Your task to perform on an android device: Go to Reddit.com Image 0: 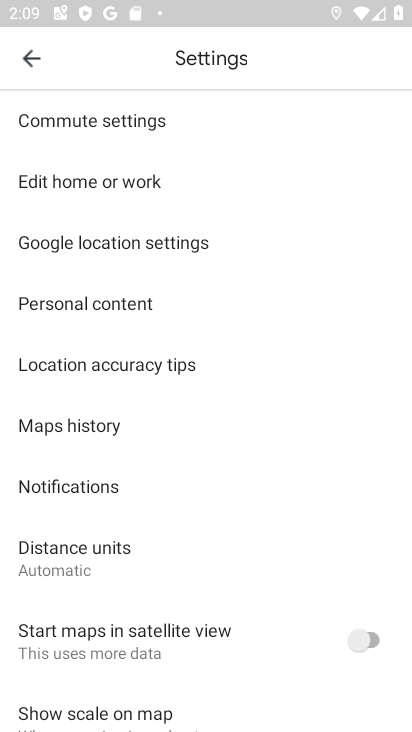
Step 0: press home button
Your task to perform on an android device: Go to Reddit.com Image 1: 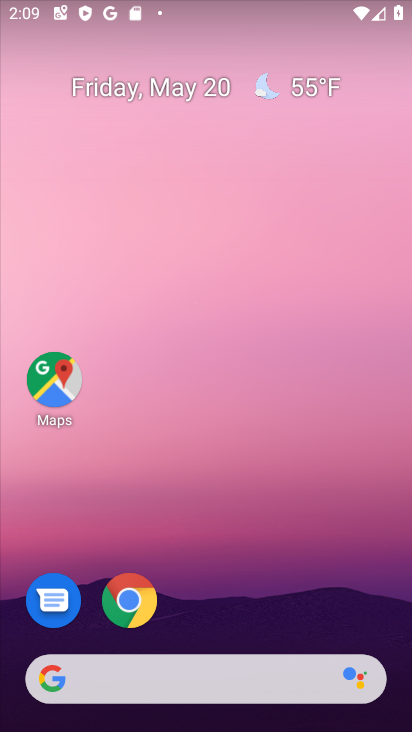
Step 1: drag from (248, 695) to (230, 3)
Your task to perform on an android device: Go to Reddit.com Image 2: 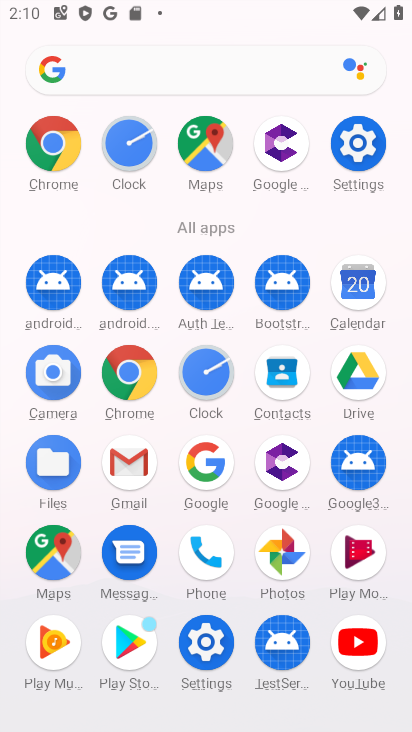
Step 2: click (60, 169)
Your task to perform on an android device: Go to Reddit.com Image 3: 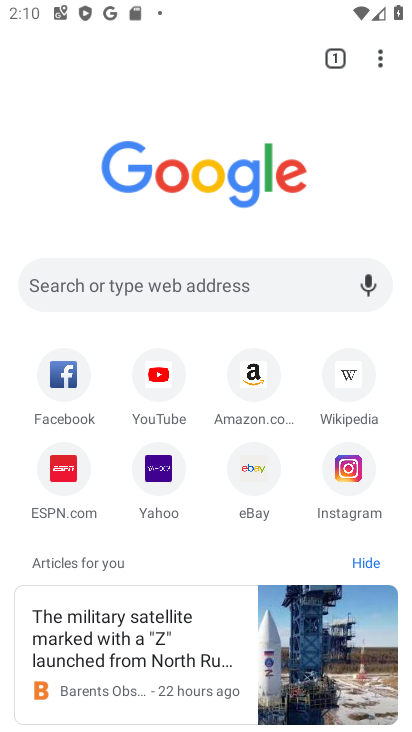
Step 3: click (200, 286)
Your task to perform on an android device: Go to Reddit.com Image 4: 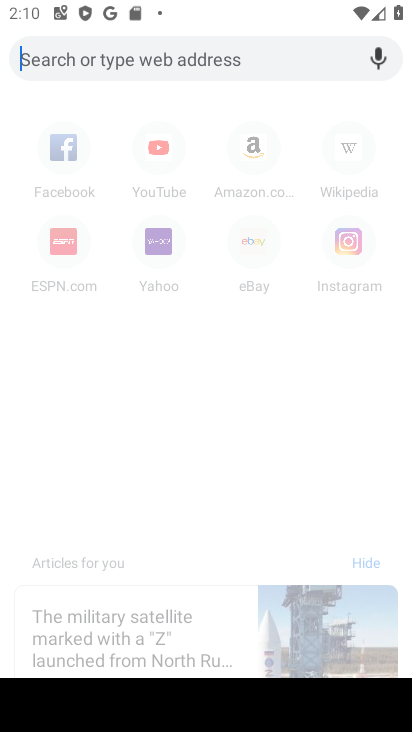
Step 4: type "reddit"
Your task to perform on an android device: Go to Reddit.com Image 5: 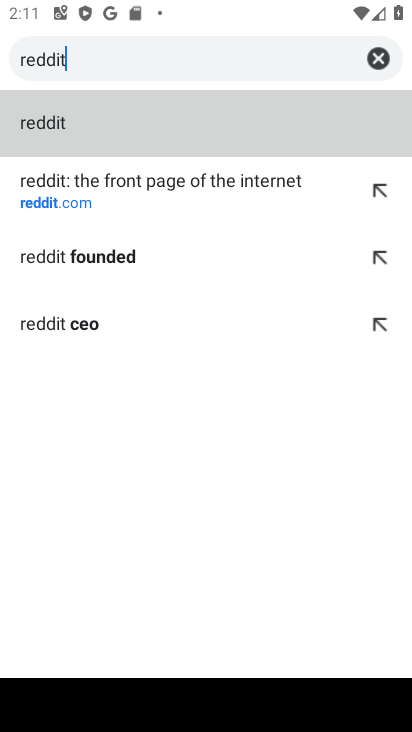
Step 5: click (132, 209)
Your task to perform on an android device: Go to Reddit.com Image 6: 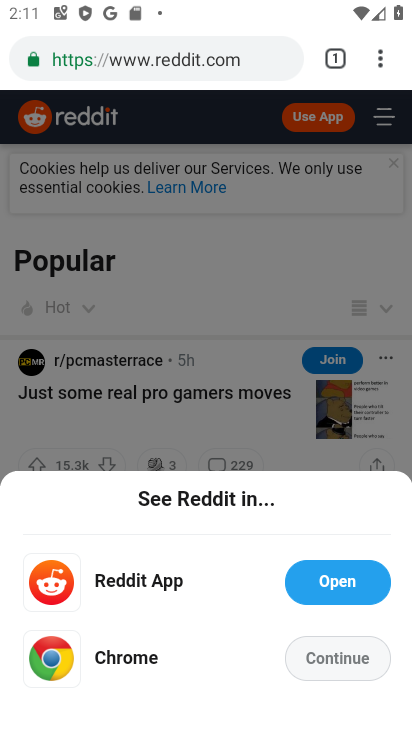
Step 6: click (345, 660)
Your task to perform on an android device: Go to Reddit.com Image 7: 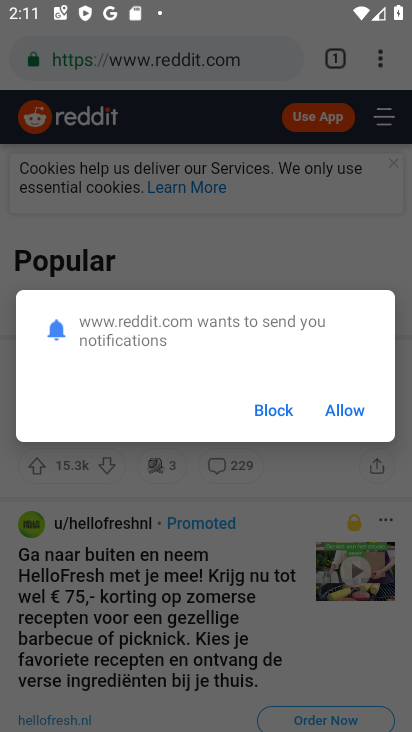
Step 7: task complete